Your task to perform on an android device: move an email to a new category in the gmail app Image 0: 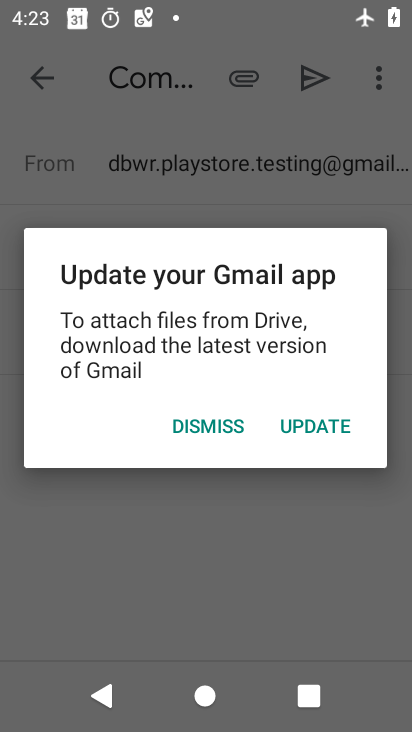
Step 0: press back button
Your task to perform on an android device: move an email to a new category in the gmail app Image 1: 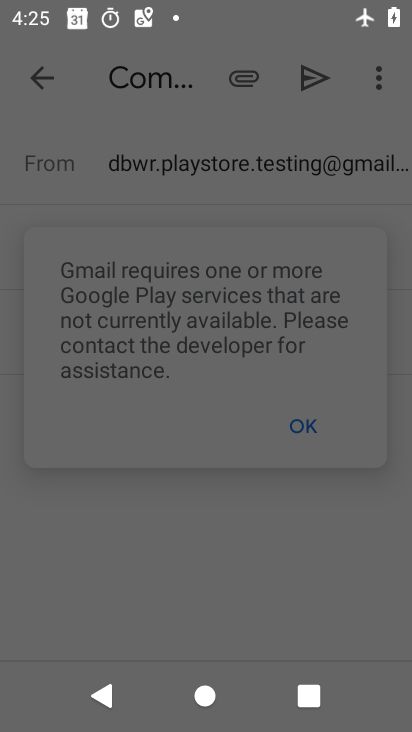
Step 1: press back button
Your task to perform on an android device: move an email to a new category in the gmail app Image 2: 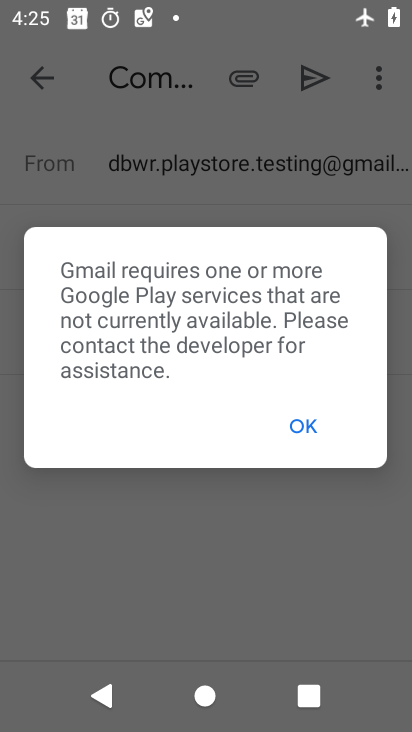
Step 2: click (310, 417)
Your task to perform on an android device: move an email to a new category in the gmail app Image 3: 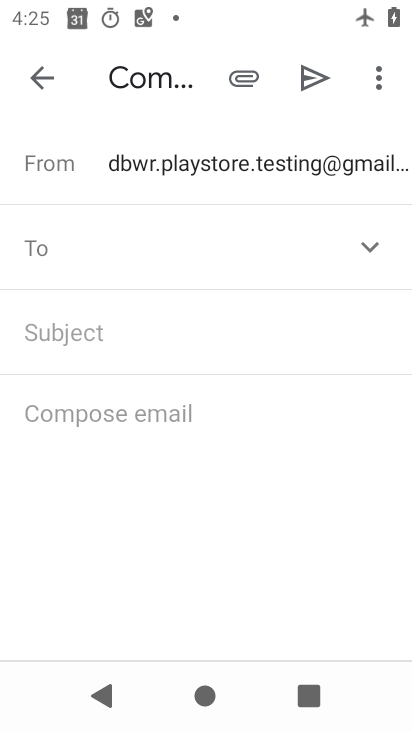
Step 3: press back button
Your task to perform on an android device: move an email to a new category in the gmail app Image 4: 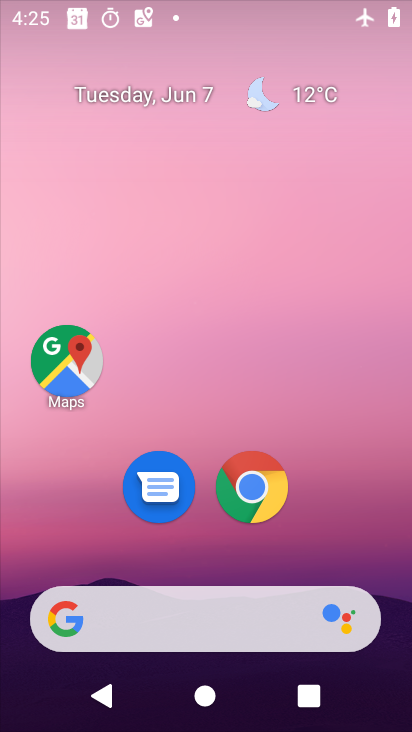
Step 4: drag from (167, 442) to (232, 0)
Your task to perform on an android device: move an email to a new category in the gmail app Image 5: 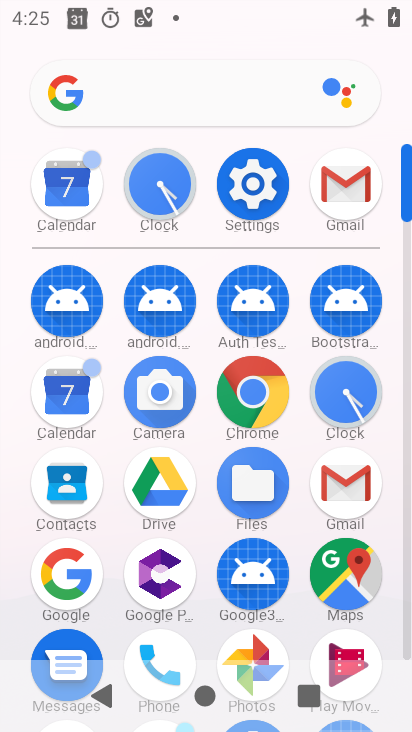
Step 5: click (338, 164)
Your task to perform on an android device: move an email to a new category in the gmail app Image 6: 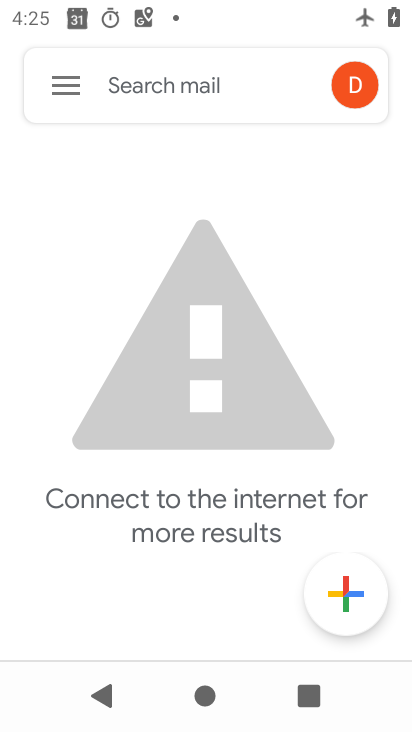
Step 6: click (33, 86)
Your task to perform on an android device: move an email to a new category in the gmail app Image 7: 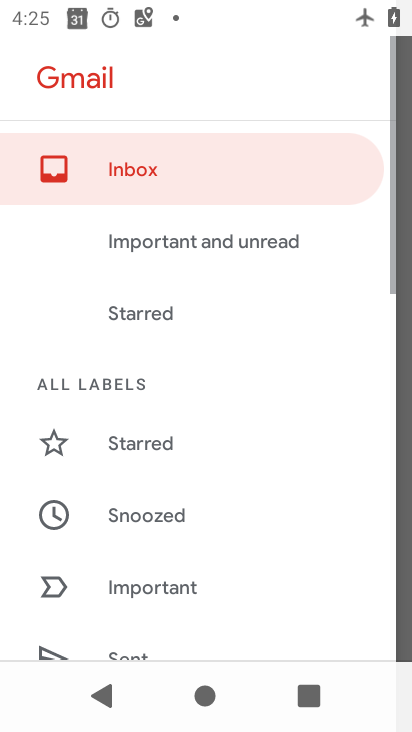
Step 7: drag from (195, 627) to (195, 185)
Your task to perform on an android device: move an email to a new category in the gmail app Image 8: 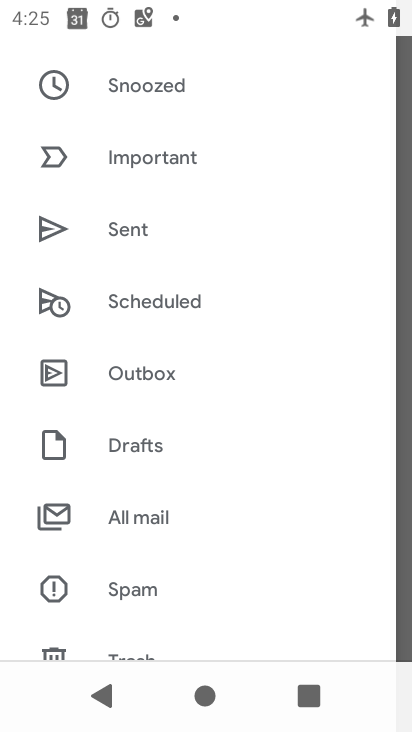
Step 8: click (151, 517)
Your task to perform on an android device: move an email to a new category in the gmail app Image 9: 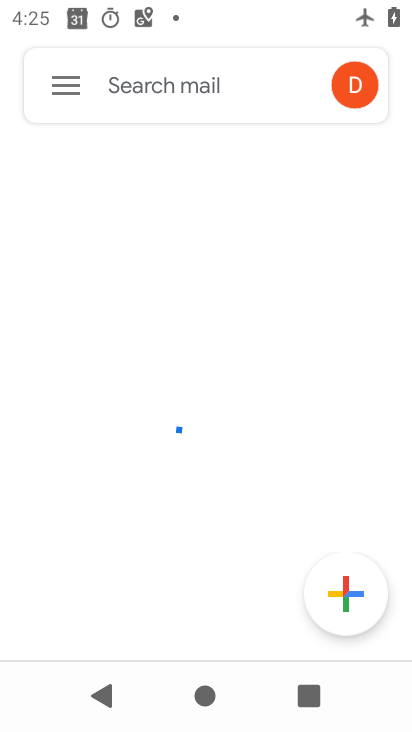
Step 9: drag from (378, 6) to (298, 437)
Your task to perform on an android device: move an email to a new category in the gmail app Image 10: 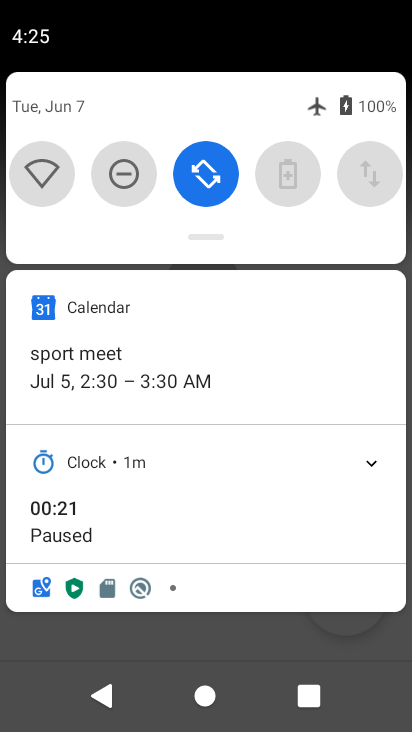
Step 10: drag from (208, 232) to (193, 692)
Your task to perform on an android device: move an email to a new category in the gmail app Image 11: 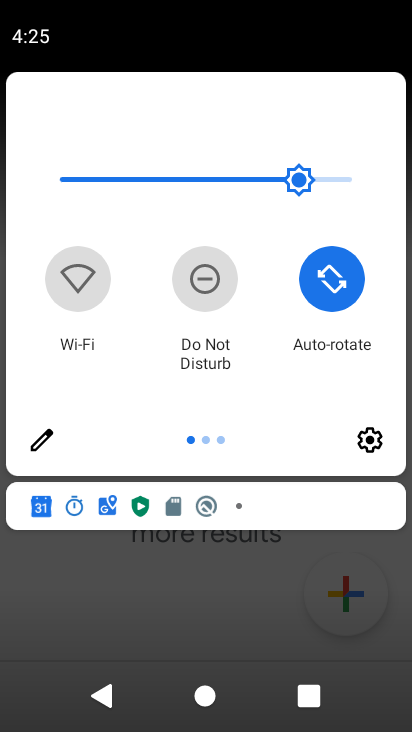
Step 11: drag from (321, 300) to (3, 284)
Your task to perform on an android device: move an email to a new category in the gmail app Image 12: 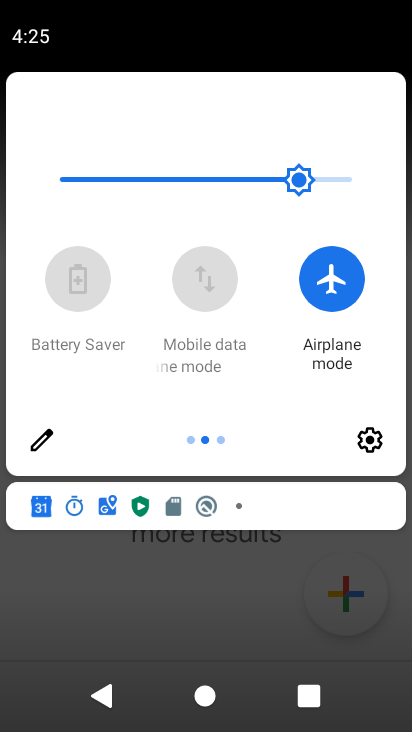
Step 12: click (336, 276)
Your task to perform on an android device: move an email to a new category in the gmail app Image 13: 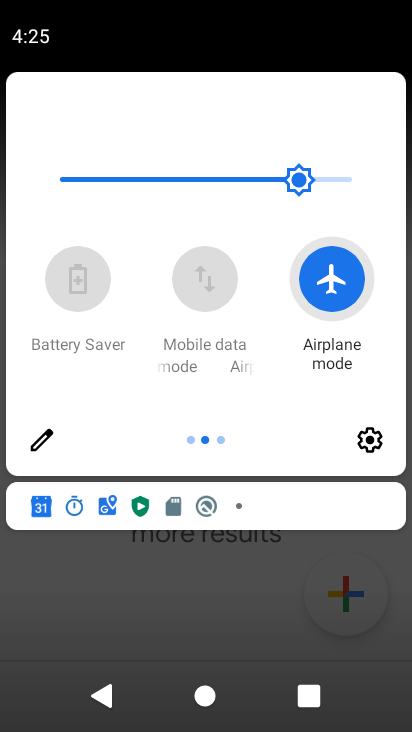
Step 13: click (134, 602)
Your task to perform on an android device: move an email to a new category in the gmail app Image 14: 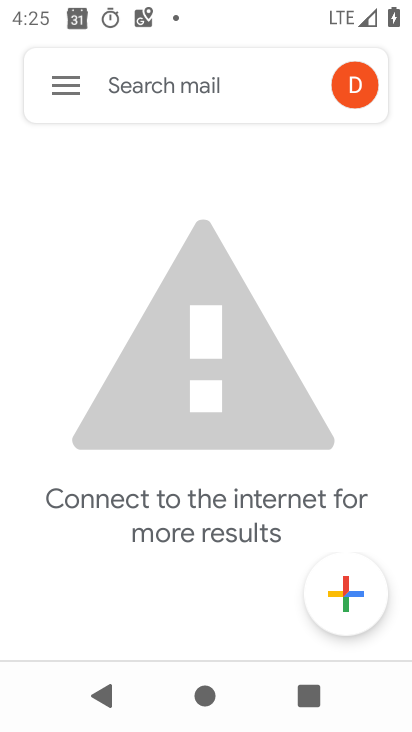
Step 14: task complete